Your task to perform on an android device: turn on showing notifications on the lock screen Image 0: 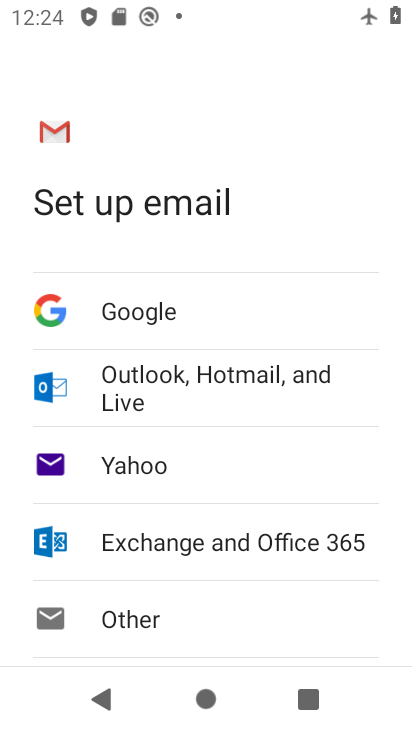
Step 0: press home button
Your task to perform on an android device: turn on showing notifications on the lock screen Image 1: 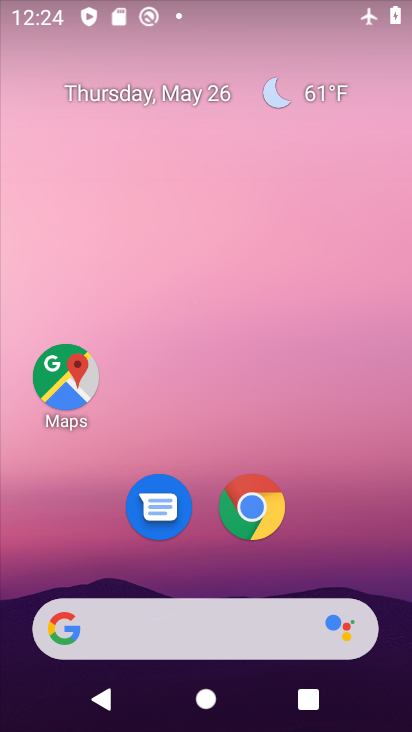
Step 1: drag from (326, 541) to (297, 9)
Your task to perform on an android device: turn on showing notifications on the lock screen Image 2: 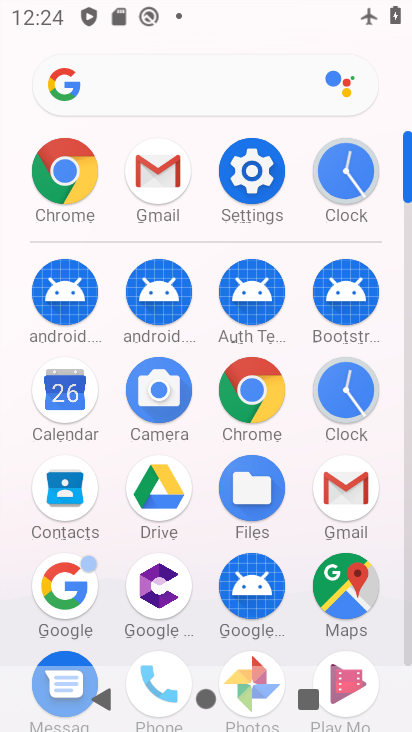
Step 2: click (253, 202)
Your task to perform on an android device: turn on showing notifications on the lock screen Image 3: 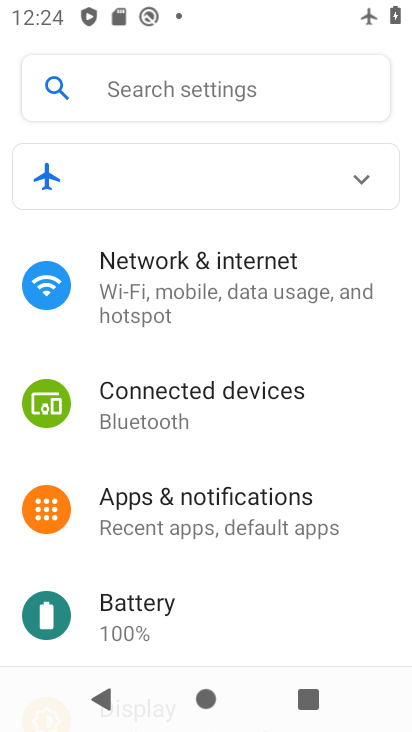
Step 3: click (186, 491)
Your task to perform on an android device: turn on showing notifications on the lock screen Image 4: 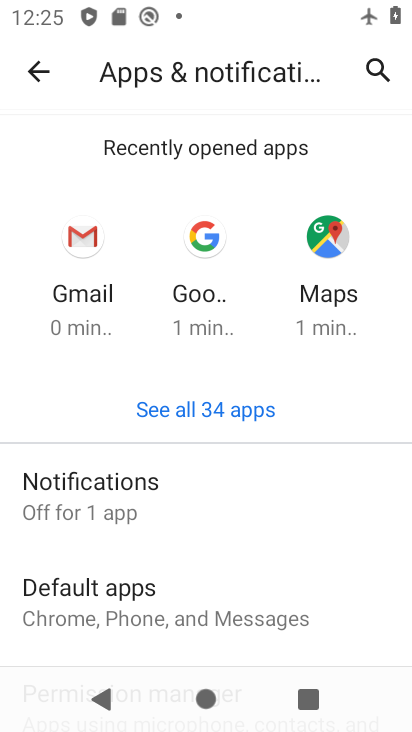
Step 4: click (231, 520)
Your task to perform on an android device: turn on showing notifications on the lock screen Image 5: 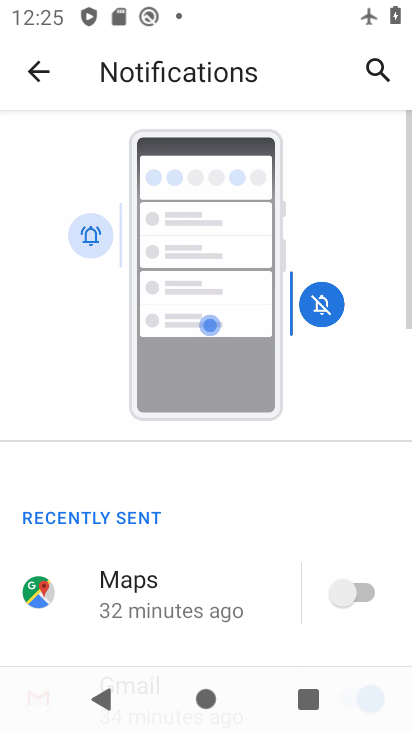
Step 5: drag from (271, 606) to (224, 72)
Your task to perform on an android device: turn on showing notifications on the lock screen Image 6: 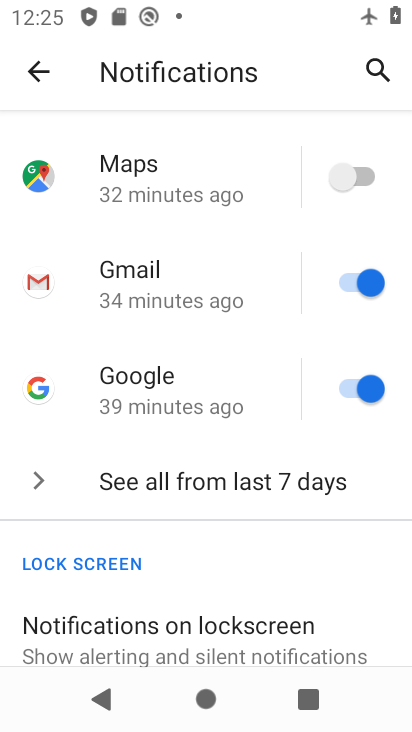
Step 6: drag from (187, 570) to (196, 225)
Your task to perform on an android device: turn on showing notifications on the lock screen Image 7: 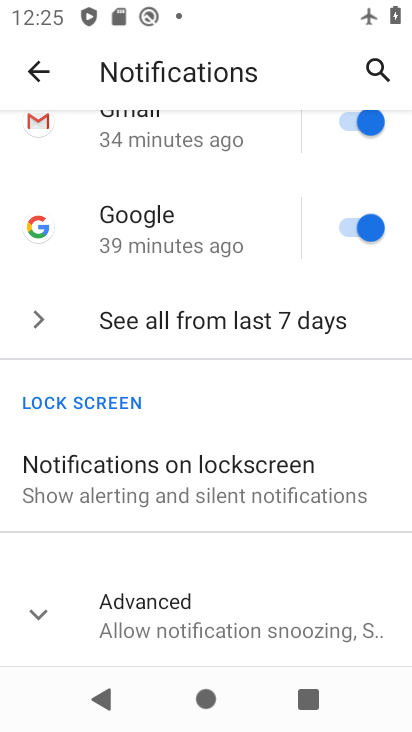
Step 7: click (128, 478)
Your task to perform on an android device: turn on showing notifications on the lock screen Image 8: 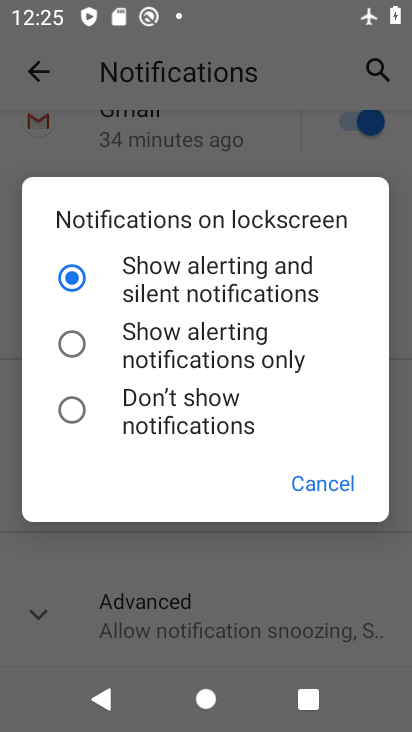
Step 8: click (171, 360)
Your task to perform on an android device: turn on showing notifications on the lock screen Image 9: 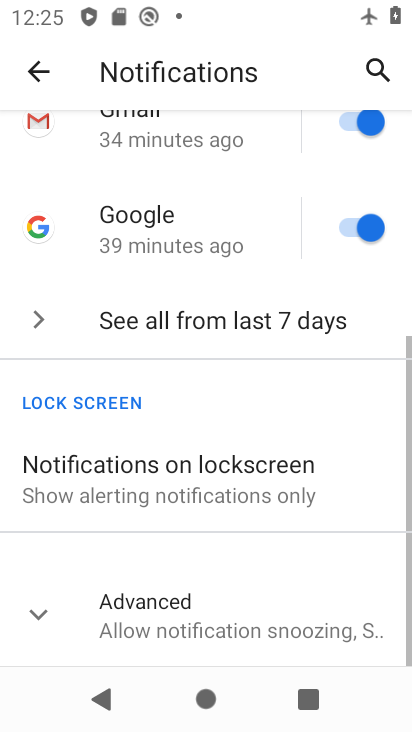
Step 9: task complete